Your task to perform on an android device: Open accessibility settings Image 0: 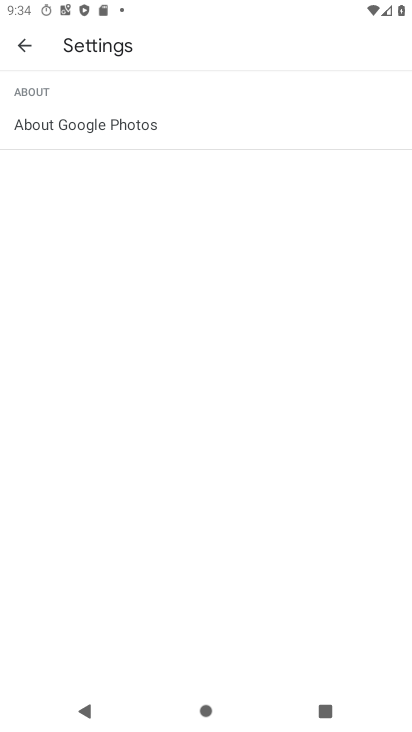
Step 0: press home button
Your task to perform on an android device: Open accessibility settings Image 1: 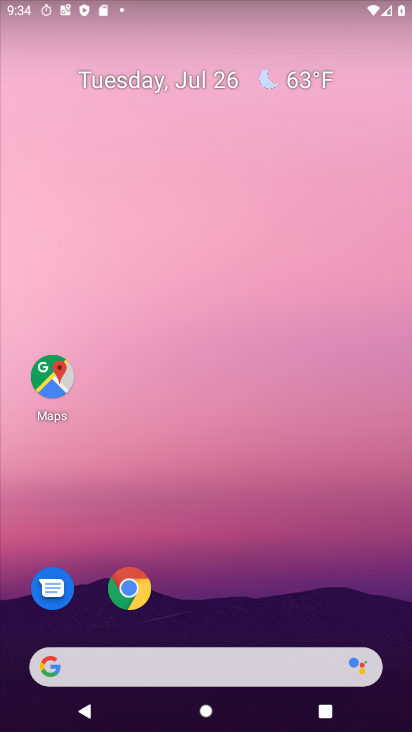
Step 1: drag from (204, 624) to (236, 234)
Your task to perform on an android device: Open accessibility settings Image 2: 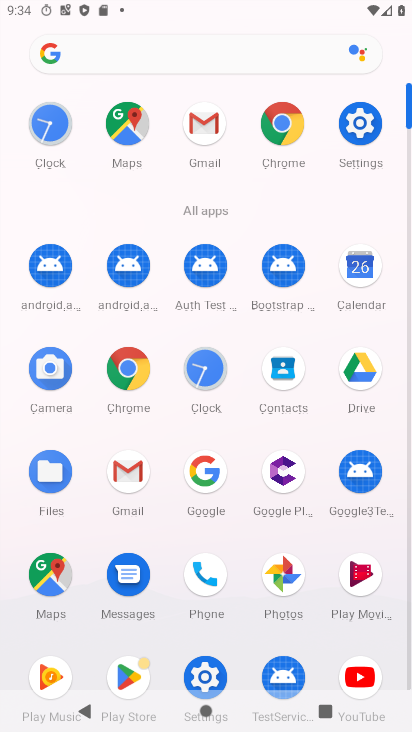
Step 2: click (366, 130)
Your task to perform on an android device: Open accessibility settings Image 3: 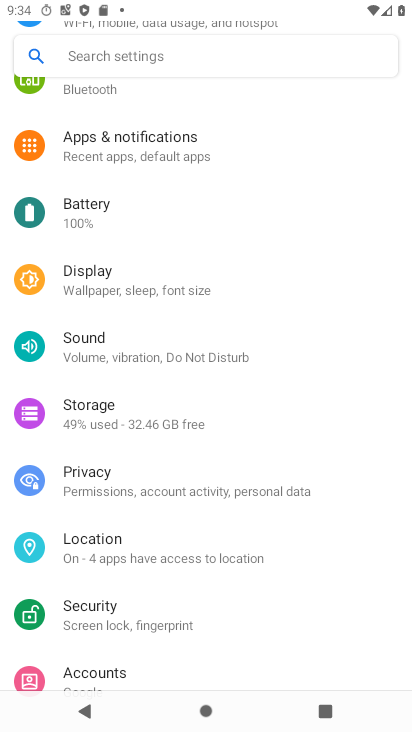
Step 3: drag from (181, 639) to (219, 258)
Your task to perform on an android device: Open accessibility settings Image 4: 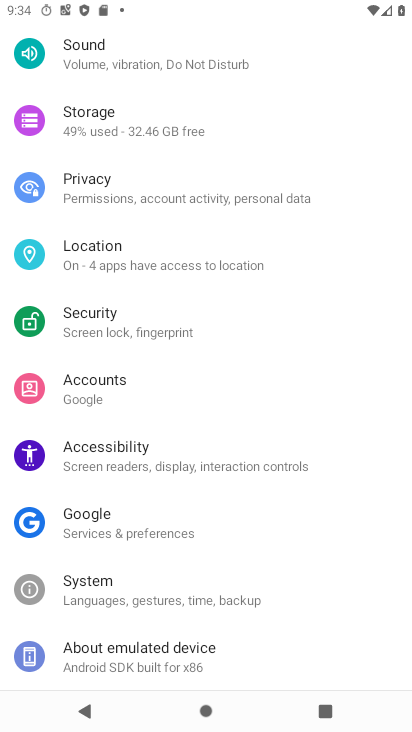
Step 4: click (100, 453)
Your task to perform on an android device: Open accessibility settings Image 5: 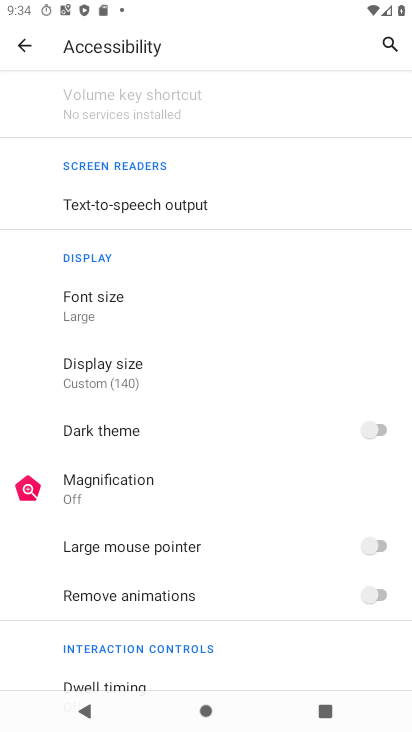
Step 5: task complete